Your task to perform on an android device: open chrome and create a bookmark for the current page Image 0: 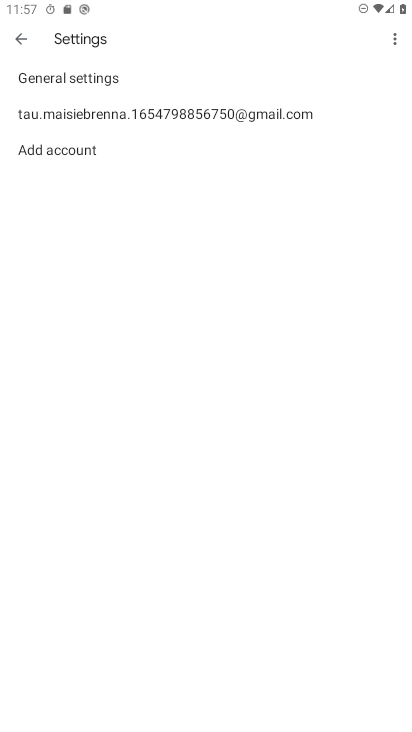
Step 0: press home button
Your task to perform on an android device: open chrome and create a bookmark for the current page Image 1: 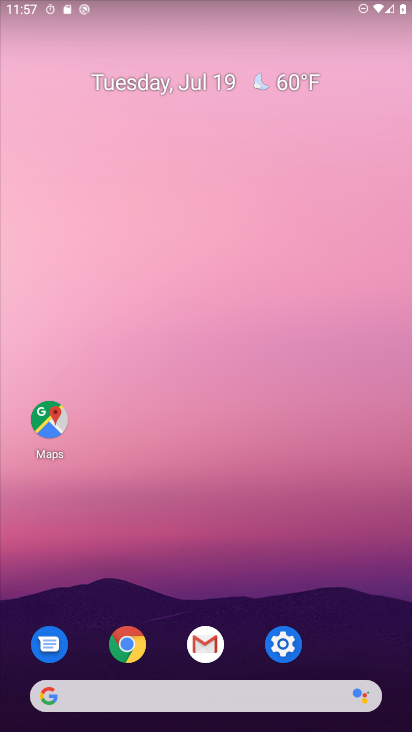
Step 1: click (143, 654)
Your task to perform on an android device: open chrome and create a bookmark for the current page Image 2: 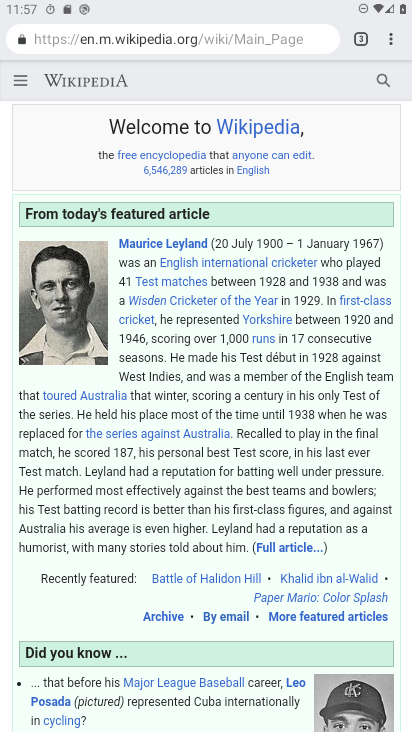
Step 2: click (382, 51)
Your task to perform on an android device: open chrome and create a bookmark for the current page Image 3: 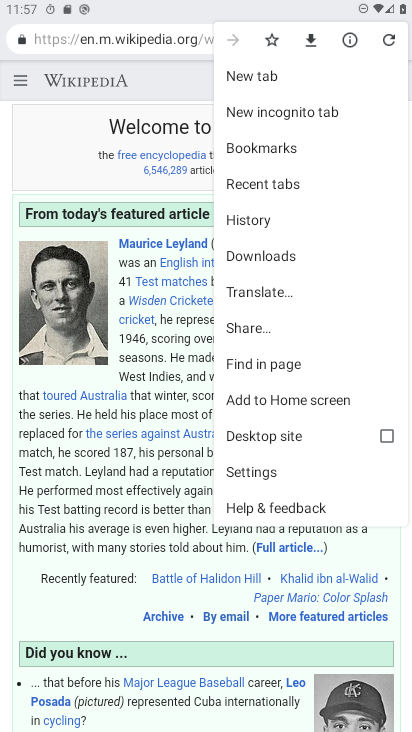
Step 3: click (279, 154)
Your task to perform on an android device: open chrome and create a bookmark for the current page Image 4: 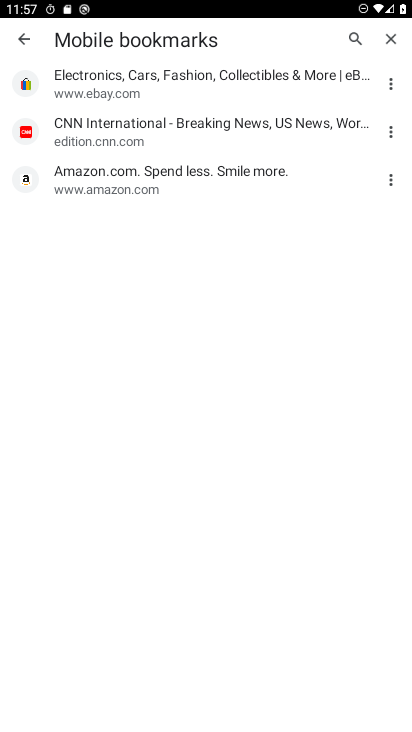
Step 4: click (204, 356)
Your task to perform on an android device: open chrome and create a bookmark for the current page Image 5: 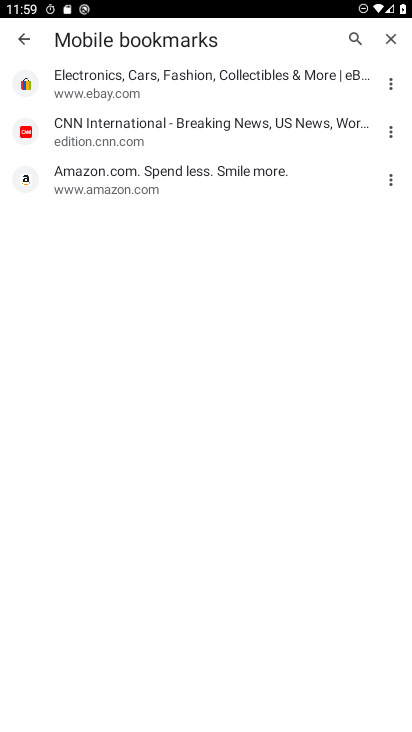
Step 5: task complete